Your task to perform on an android device: turn on location history Image 0: 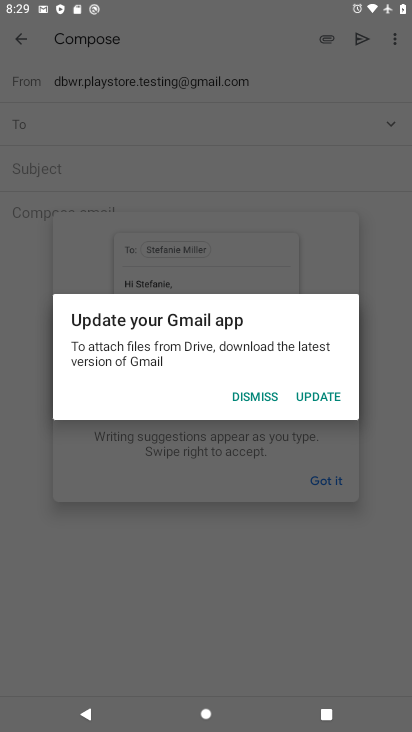
Step 0: press home button
Your task to perform on an android device: turn on location history Image 1: 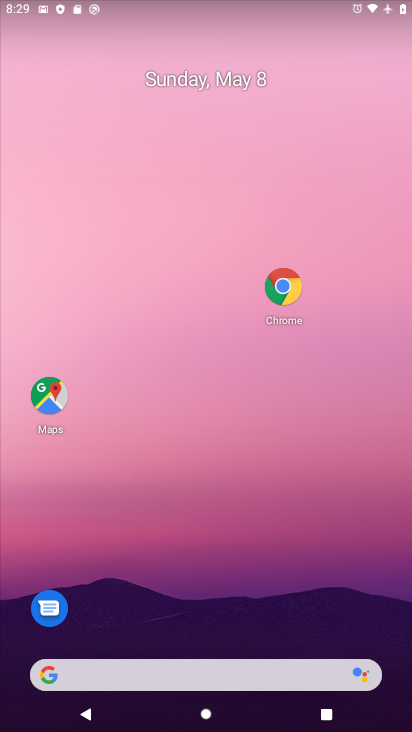
Step 1: drag from (164, 674) to (305, 107)
Your task to perform on an android device: turn on location history Image 2: 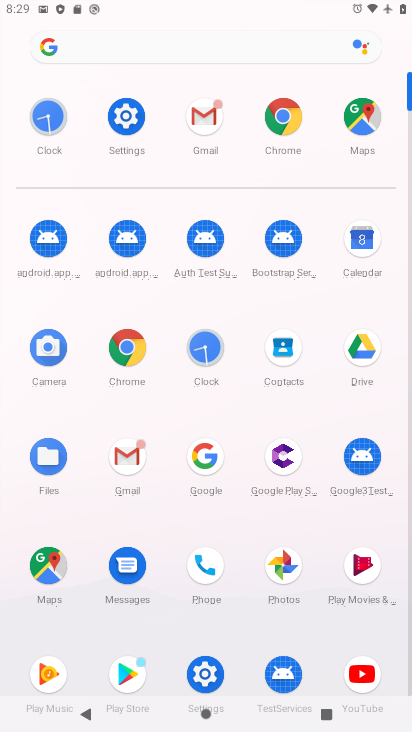
Step 2: click (361, 129)
Your task to perform on an android device: turn on location history Image 3: 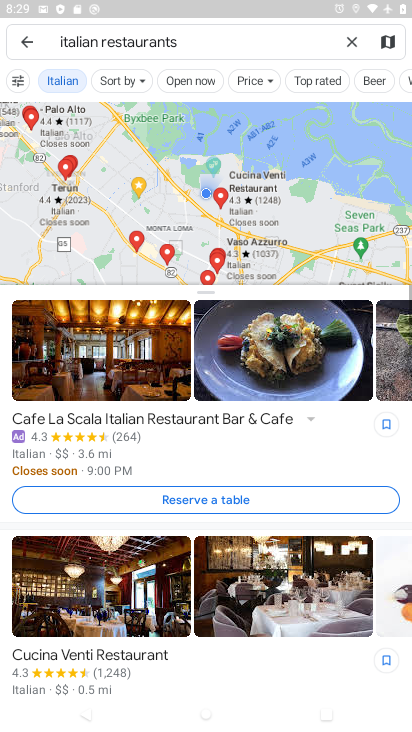
Step 3: click (29, 43)
Your task to perform on an android device: turn on location history Image 4: 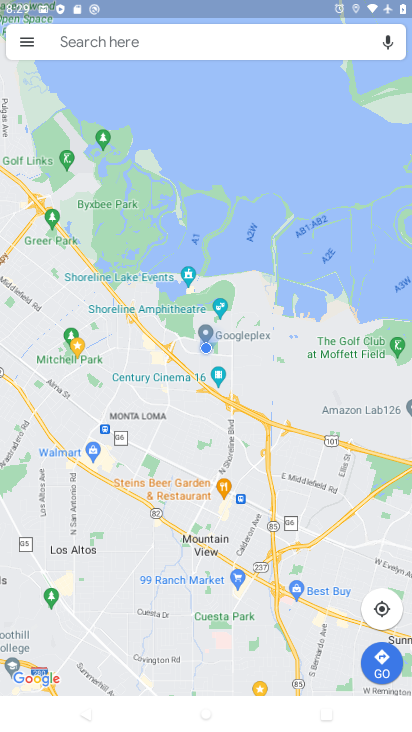
Step 4: click (32, 38)
Your task to perform on an android device: turn on location history Image 5: 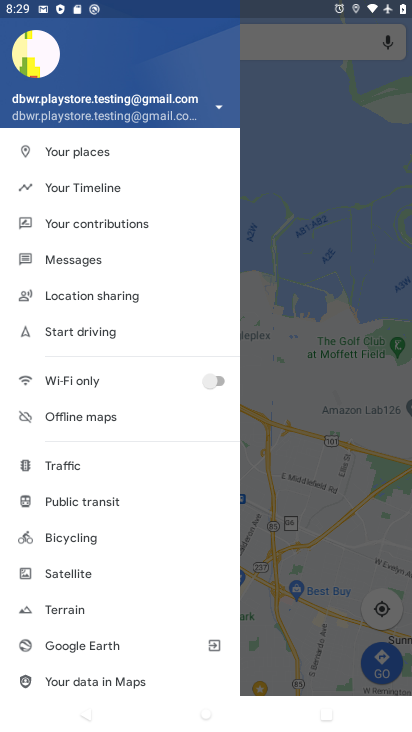
Step 5: click (97, 188)
Your task to perform on an android device: turn on location history Image 6: 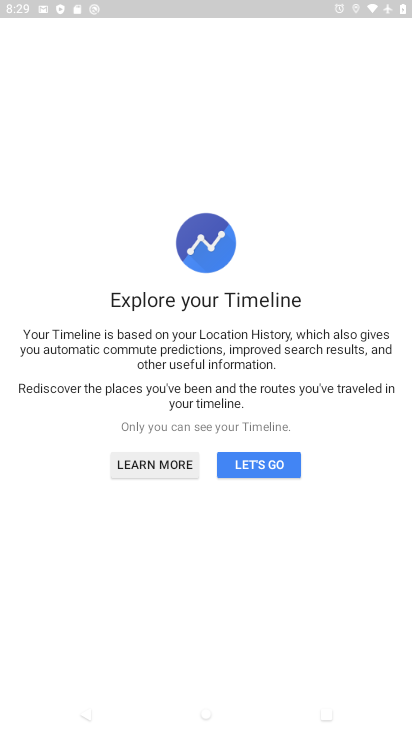
Step 6: click (281, 470)
Your task to perform on an android device: turn on location history Image 7: 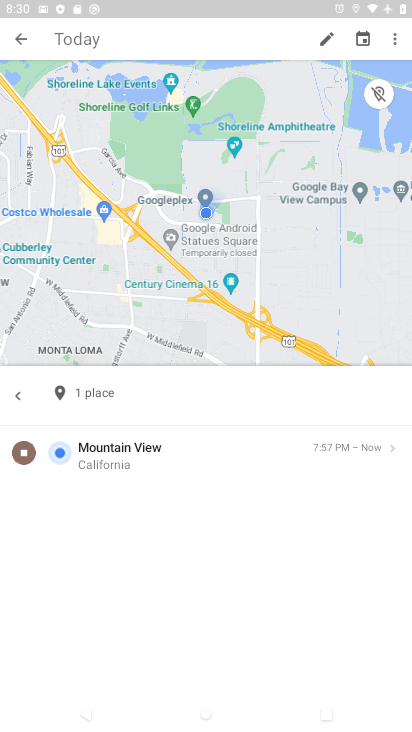
Step 7: click (392, 35)
Your task to perform on an android device: turn on location history Image 8: 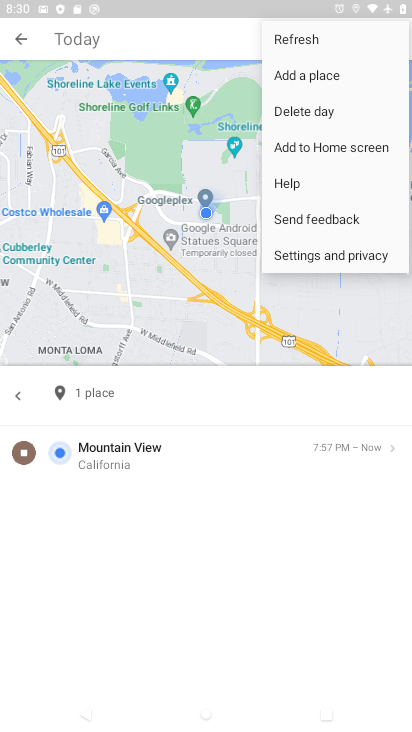
Step 8: click (297, 256)
Your task to perform on an android device: turn on location history Image 9: 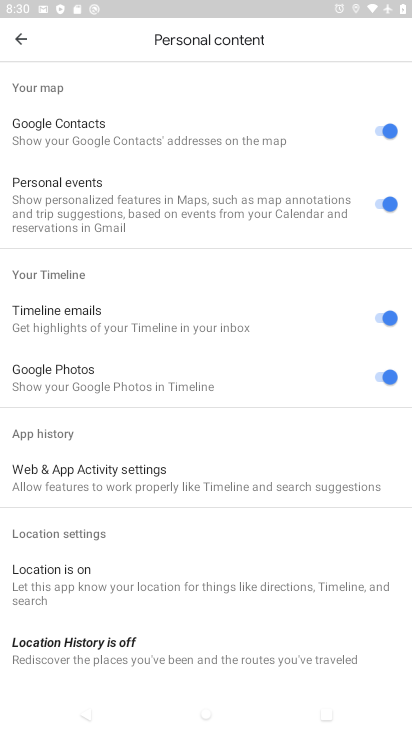
Step 9: click (121, 646)
Your task to perform on an android device: turn on location history Image 10: 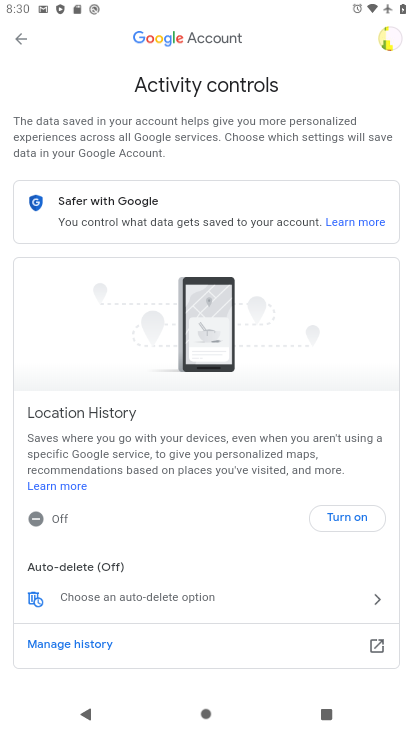
Step 10: click (334, 515)
Your task to perform on an android device: turn on location history Image 11: 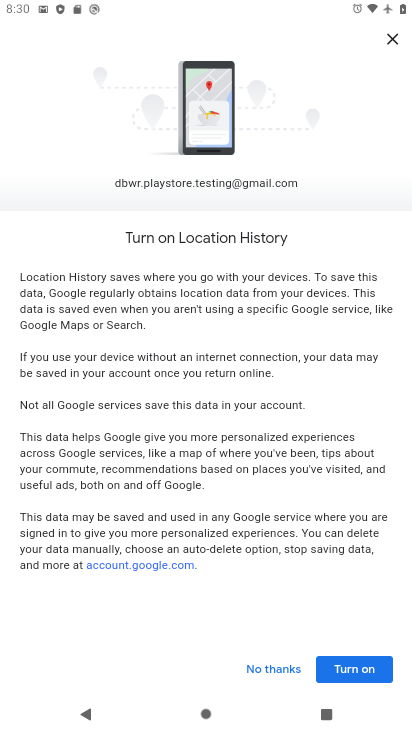
Step 11: drag from (200, 593) to (292, 334)
Your task to perform on an android device: turn on location history Image 12: 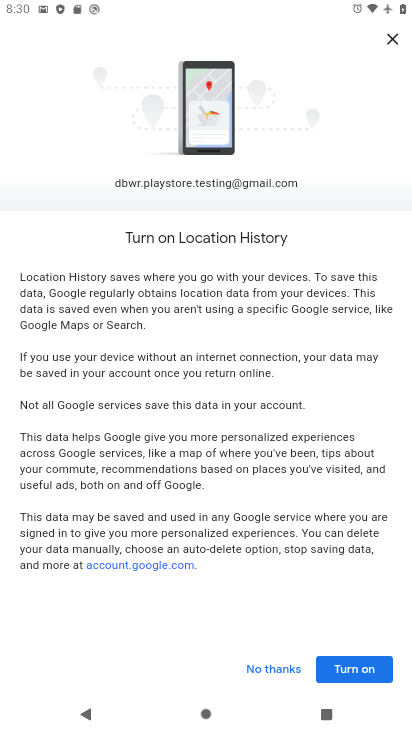
Step 12: click (361, 671)
Your task to perform on an android device: turn on location history Image 13: 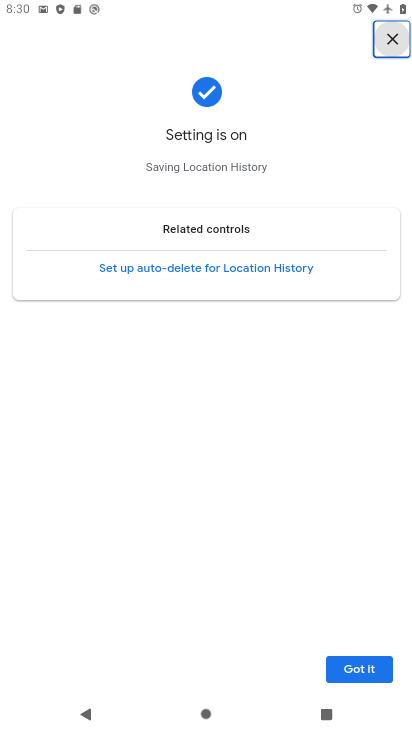
Step 13: click (358, 673)
Your task to perform on an android device: turn on location history Image 14: 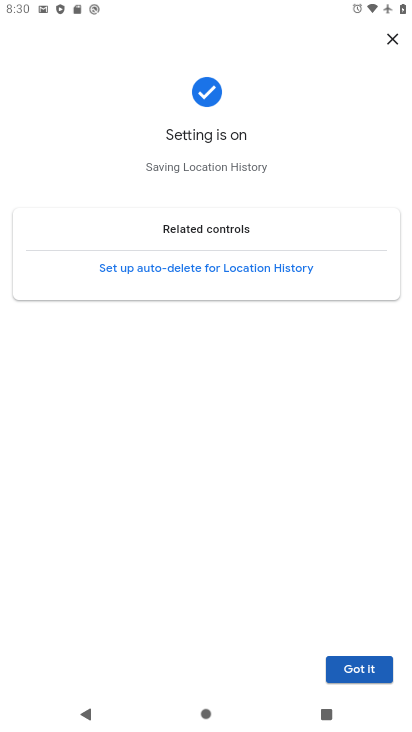
Step 14: click (354, 670)
Your task to perform on an android device: turn on location history Image 15: 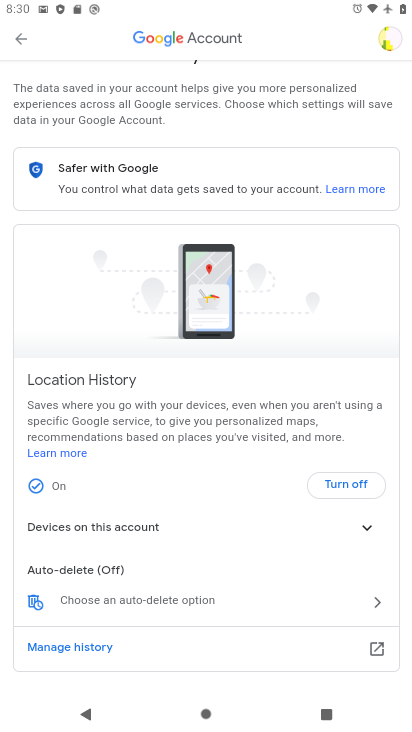
Step 15: task complete